Your task to perform on an android device: Set the phone to "Do not disturb". Image 0: 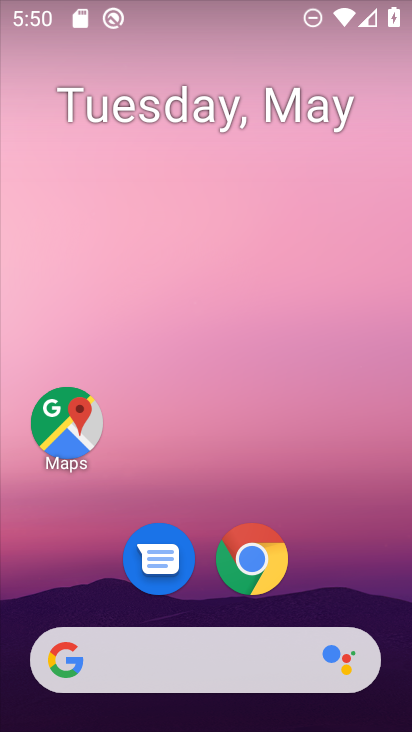
Step 0: drag from (319, 577) to (293, 145)
Your task to perform on an android device: Set the phone to "Do not disturb". Image 1: 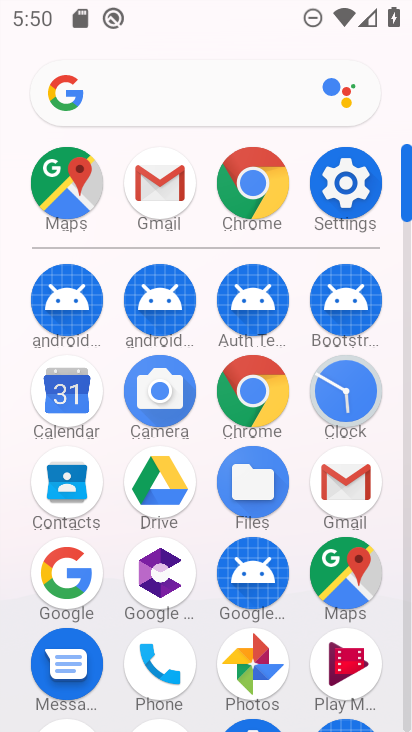
Step 1: click (352, 189)
Your task to perform on an android device: Set the phone to "Do not disturb". Image 2: 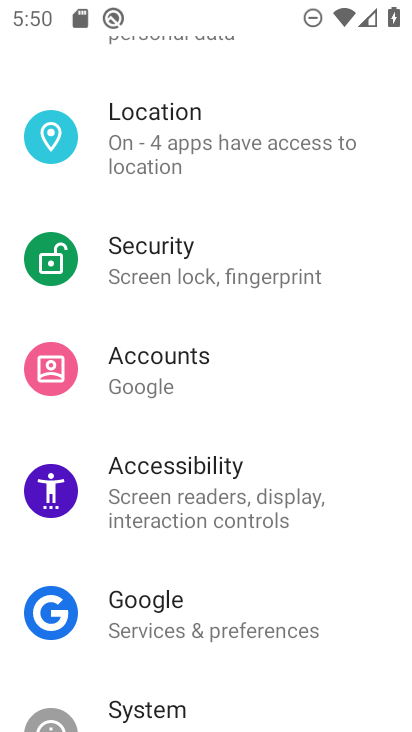
Step 2: drag from (225, 334) to (200, 553)
Your task to perform on an android device: Set the phone to "Do not disturb". Image 3: 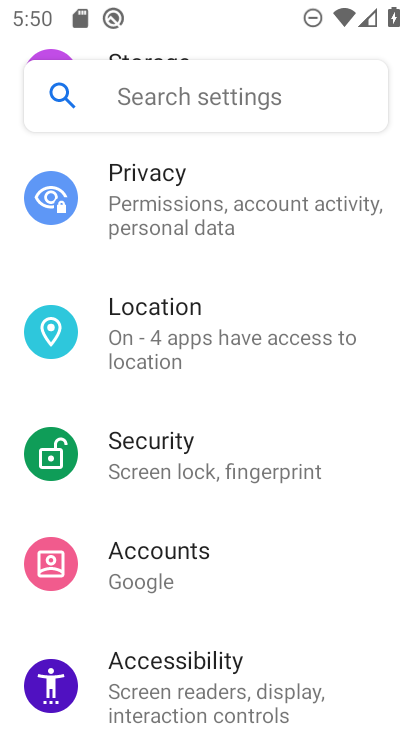
Step 3: drag from (166, 602) to (176, 416)
Your task to perform on an android device: Set the phone to "Do not disturb". Image 4: 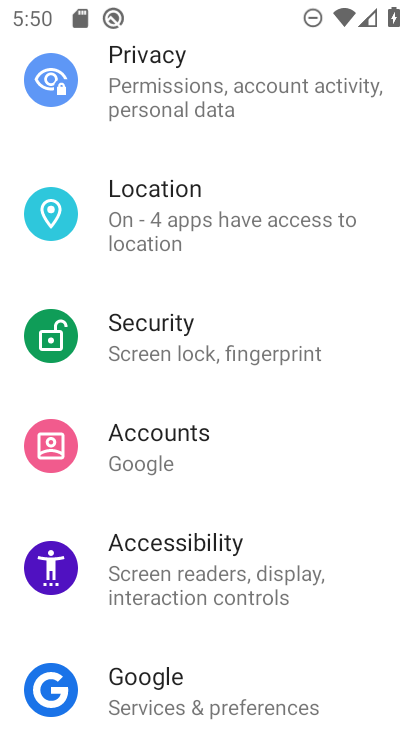
Step 4: drag from (184, 650) to (190, 433)
Your task to perform on an android device: Set the phone to "Do not disturb". Image 5: 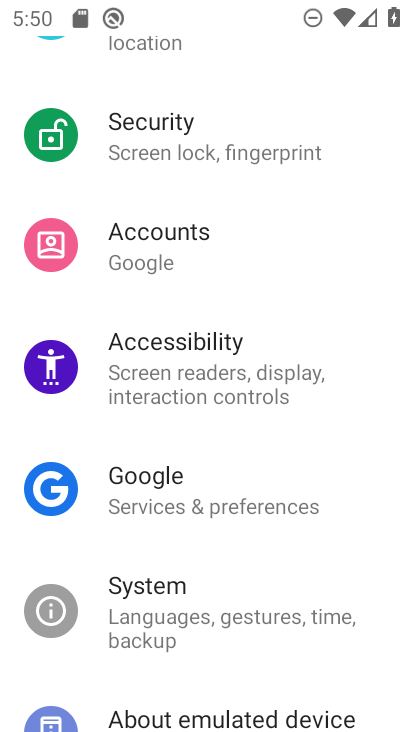
Step 5: drag from (206, 240) to (209, 536)
Your task to perform on an android device: Set the phone to "Do not disturb". Image 6: 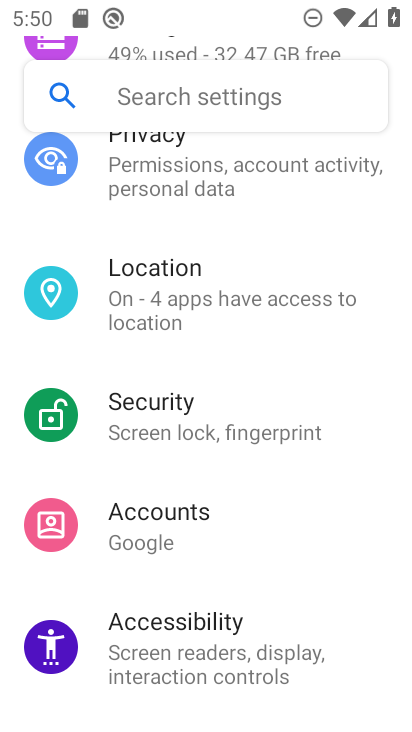
Step 6: drag from (239, 366) to (239, 685)
Your task to perform on an android device: Set the phone to "Do not disturb". Image 7: 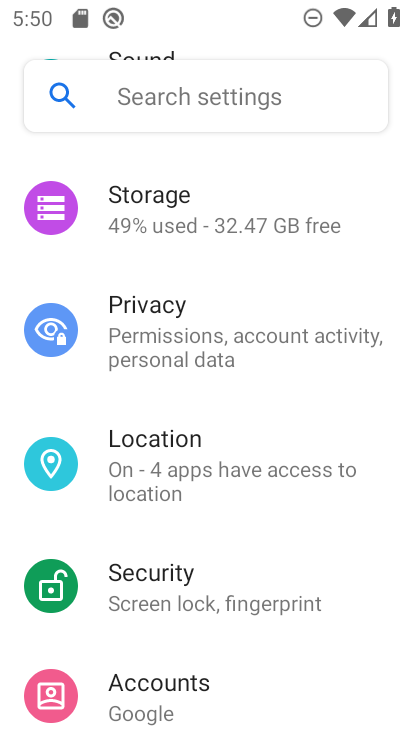
Step 7: drag from (217, 356) to (218, 654)
Your task to perform on an android device: Set the phone to "Do not disturb". Image 8: 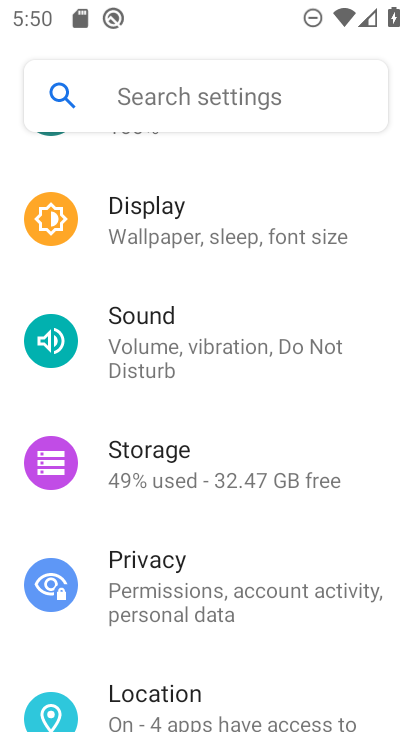
Step 8: click (146, 338)
Your task to perform on an android device: Set the phone to "Do not disturb". Image 9: 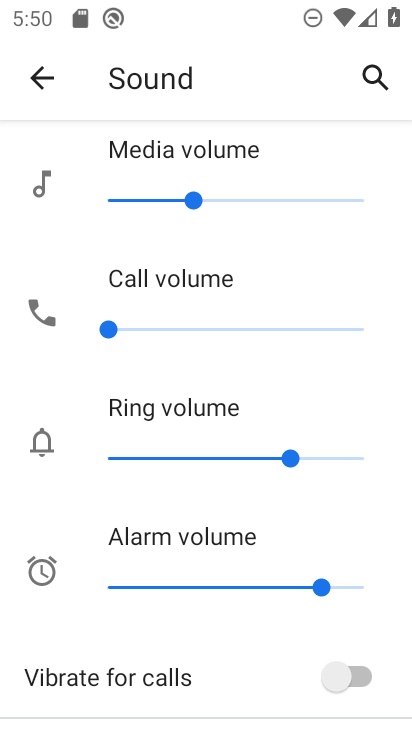
Step 9: drag from (222, 608) to (218, 341)
Your task to perform on an android device: Set the phone to "Do not disturb". Image 10: 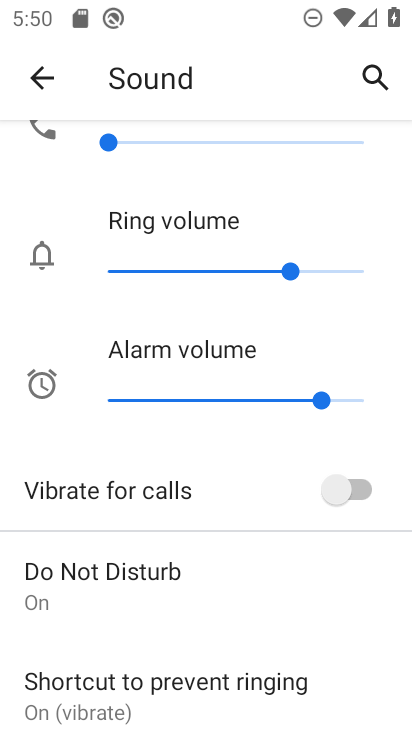
Step 10: click (104, 596)
Your task to perform on an android device: Set the phone to "Do not disturb". Image 11: 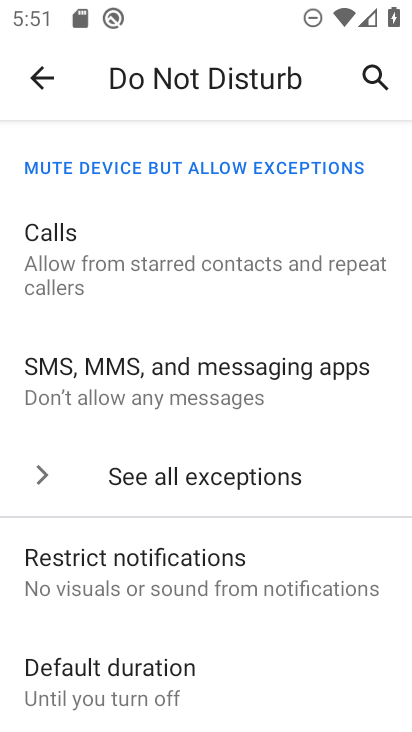
Step 11: task complete